Your task to perform on an android device: Is it going to rain tomorrow? Image 0: 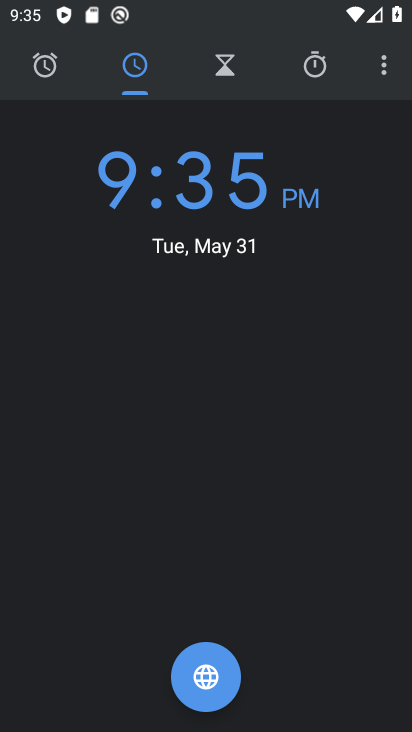
Step 0: press back button
Your task to perform on an android device: Is it going to rain tomorrow? Image 1: 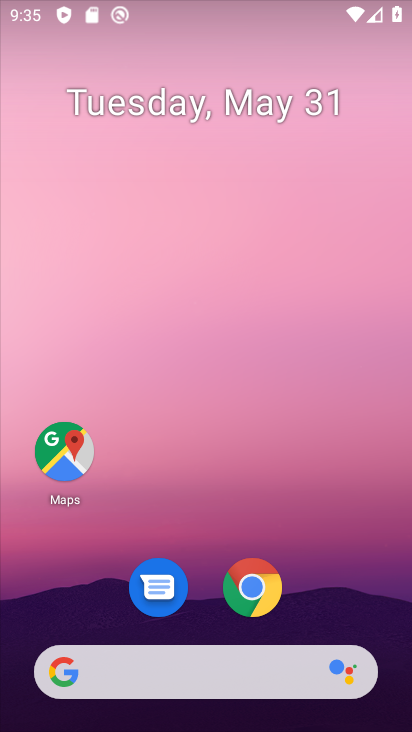
Step 1: drag from (159, 129) to (158, 15)
Your task to perform on an android device: Is it going to rain tomorrow? Image 2: 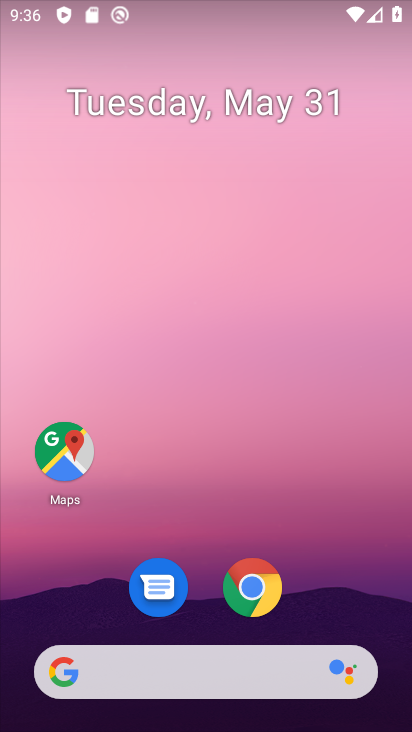
Step 2: drag from (298, 723) to (148, 151)
Your task to perform on an android device: Is it going to rain tomorrow? Image 3: 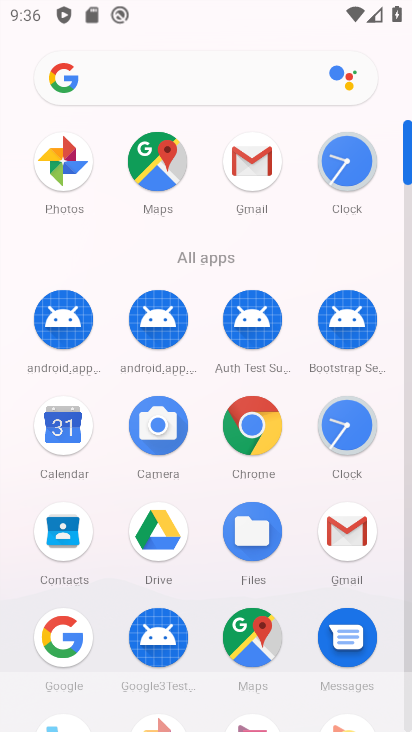
Step 3: press back button
Your task to perform on an android device: Is it going to rain tomorrow? Image 4: 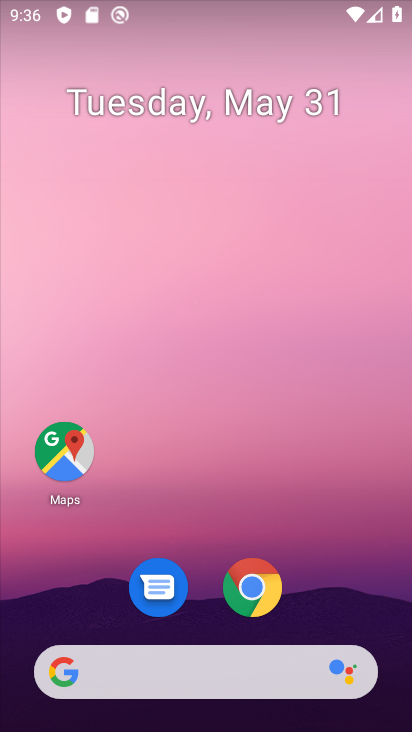
Step 4: drag from (25, 179) to (384, 338)
Your task to perform on an android device: Is it going to rain tomorrow? Image 5: 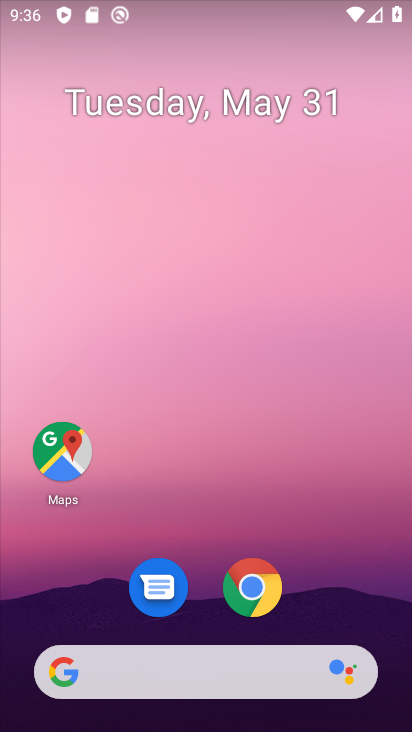
Step 5: drag from (170, 300) to (391, 410)
Your task to perform on an android device: Is it going to rain tomorrow? Image 6: 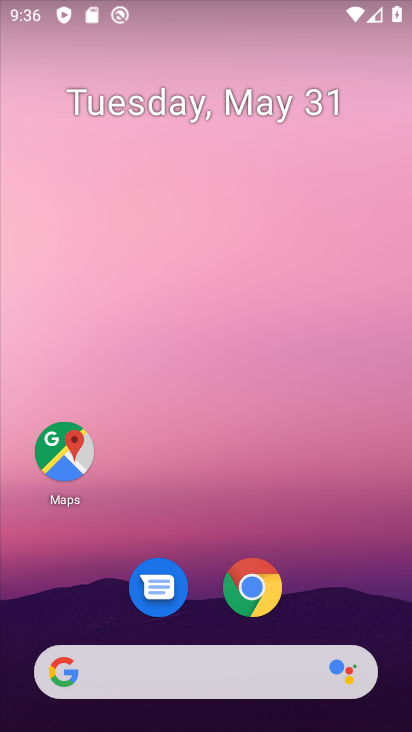
Step 6: drag from (0, 225) to (365, 409)
Your task to perform on an android device: Is it going to rain tomorrow? Image 7: 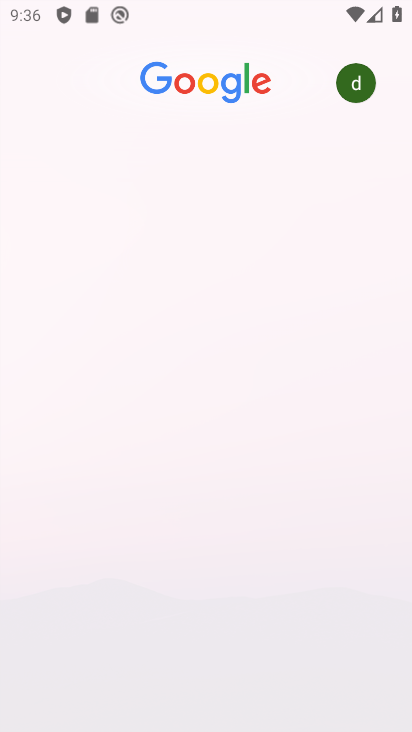
Step 7: drag from (6, 221) to (375, 328)
Your task to perform on an android device: Is it going to rain tomorrow? Image 8: 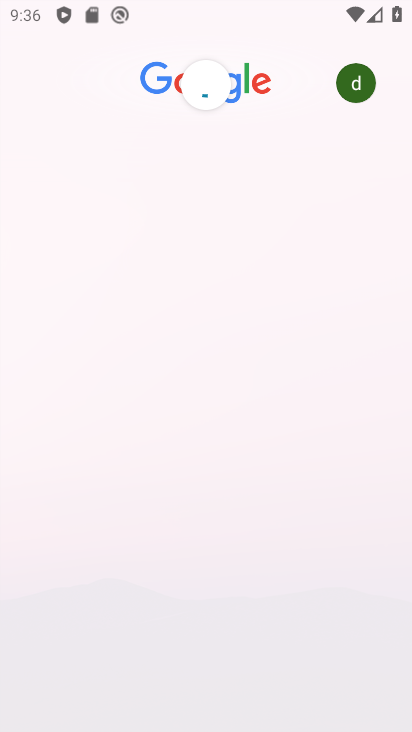
Step 8: drag from (13, 222) to (364, 415)
Your task to perform on an android device: Is it going to rain tomorrow? Image 9: 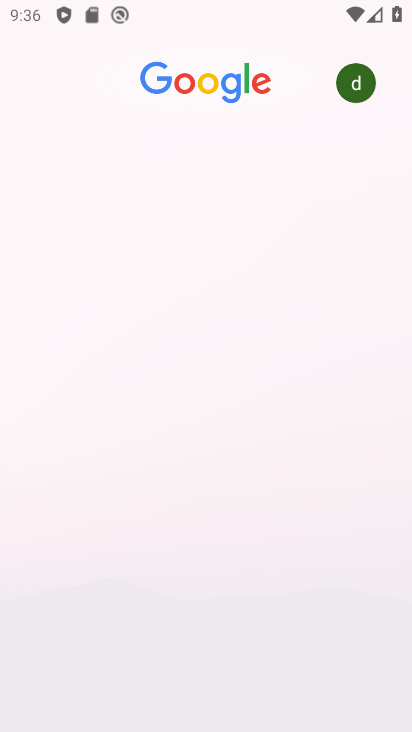
Step 9: drag from (63, 281) to (395, 396)
Your task to perform on an android device: Is it going to rain tomorrow? Image 10: 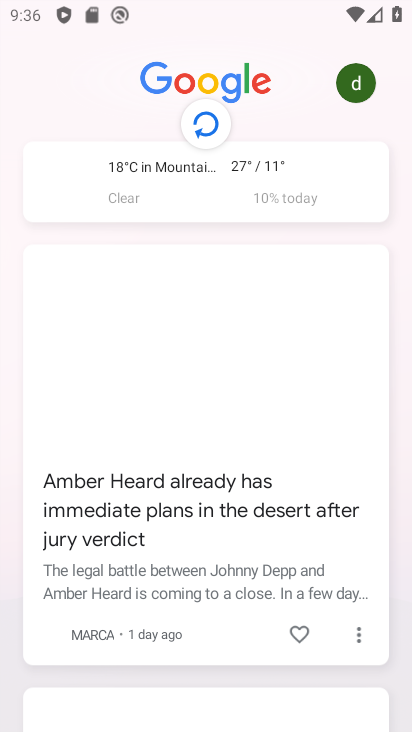
Step 10: drag from (84, 237) to (392, 417)
Your task to perform on an android device: Is it going to rain tomorrow? Image 11: 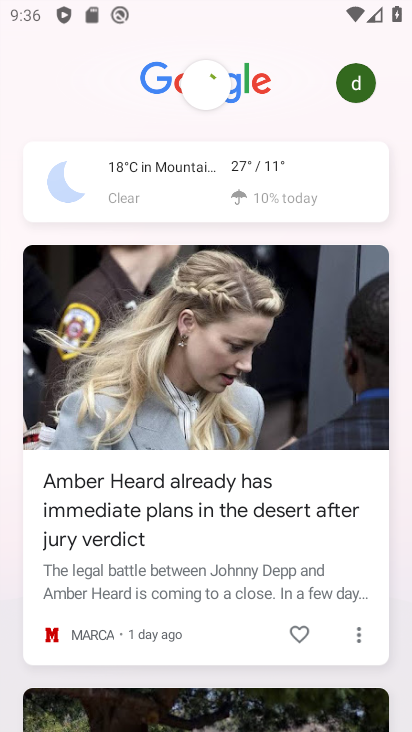
Step 11: click (205, 188)
Your task to perform on an android device: Is it going to rain tomorrow? Image 12: 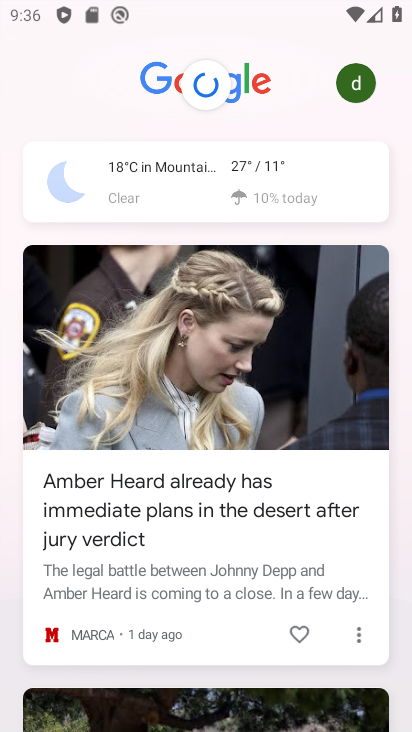
Step 12: click (205, 196)
Your task to perform on an android device: Is it going to rain tomorrow? Image 13: 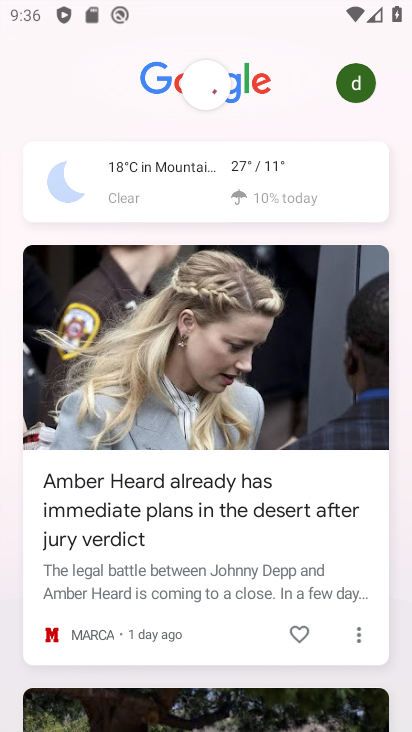
Step 13: click (206, 200)
Your task to perform on an android device: Is it going to rain tomorrow? Image 14: 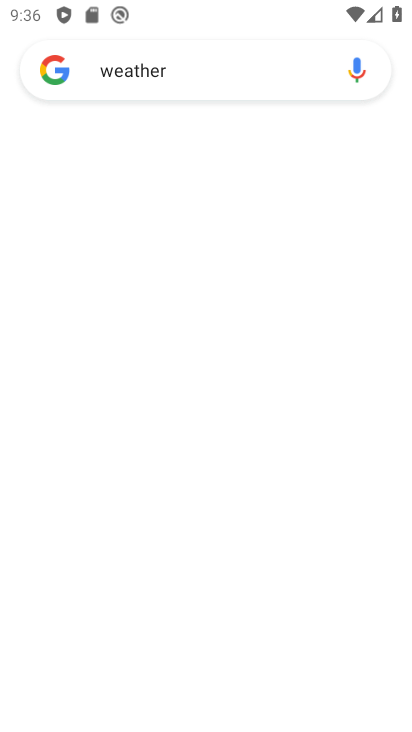
Step 14: click (206, 205)
Your task to perform on an android device: Is it going to rain tomorrow? Image 15: 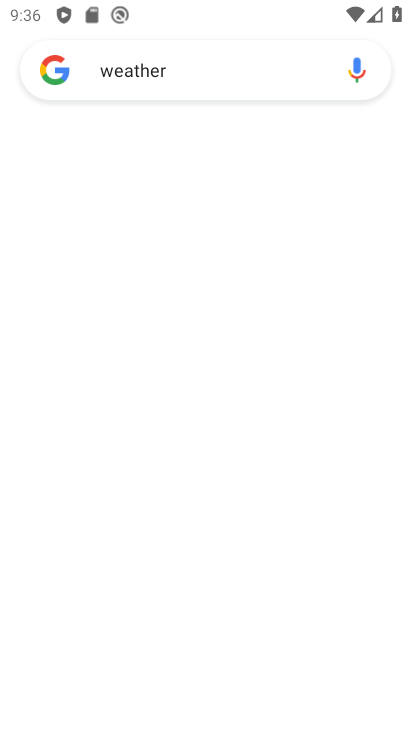
Step 15: click (204, 205)
Your task to perform on an android device: Is it going to rain tomorrow? Image 16: 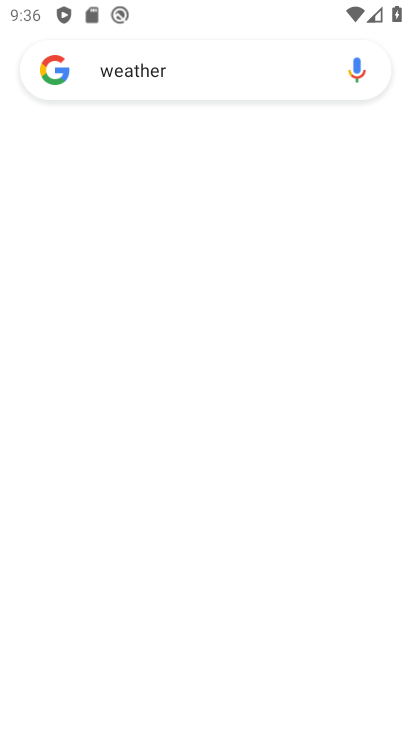
Step 16: click (198, 200)
Your task to perform on an android device: Is it going to rain tomorrow? Image 17: 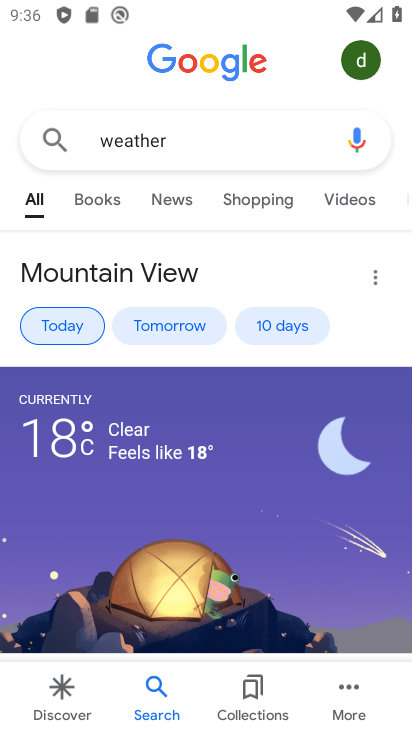
Step 17: task complete